Your task to perform on an android device: Search for vegetarian restaurants on Maps Image 0: 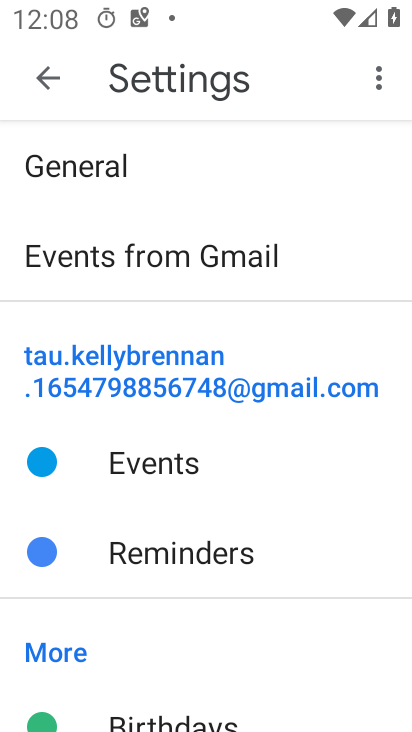
Step 0: press home button
Your task to perform on an android device: Search for vegetarian restaurants on Maps Image 1: 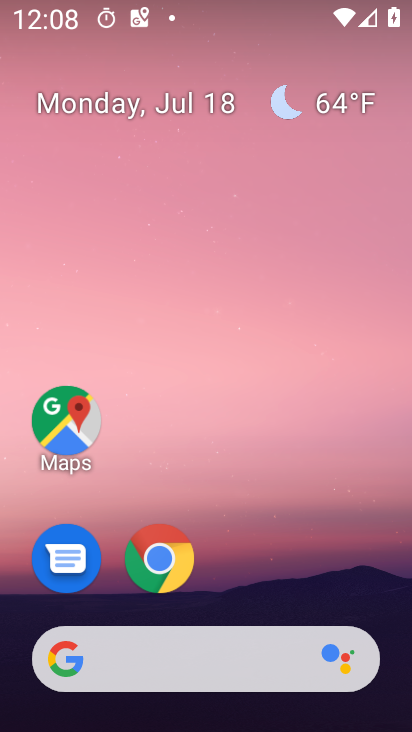
Step 1: drag from (337, 587) to (368, 124)
Your task to perform on an android device: Search for vegetarian restaurants on Maps Image 2: 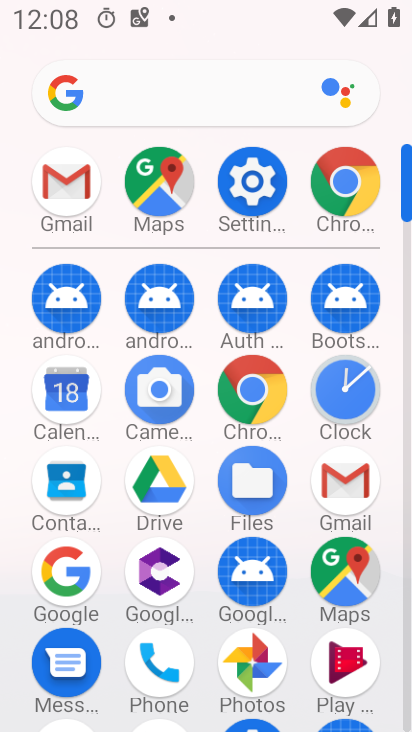
Step 2: click (349, 601)
Your task to perform on an android device: Search for vegetarian restaurants on Maps Image 3: 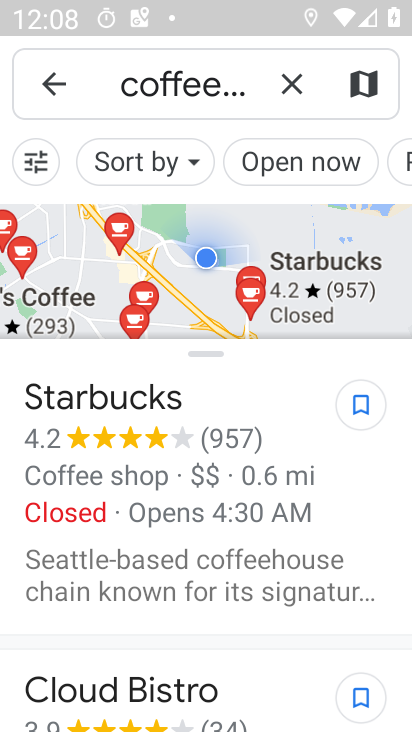
Step 3: press back button
Your task to perform on an android device: Search for vegetarian restaurants on Maps Image 4: 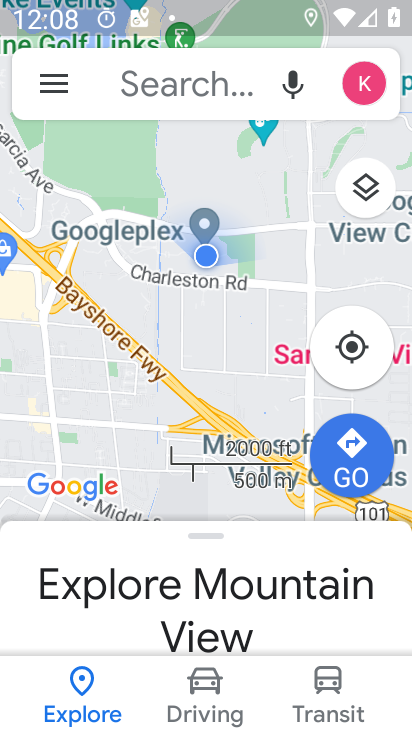
Step 4: click (174, 95)
Your task to perform on an android device: Search for vegetarian restaurants on Maps Image 5: 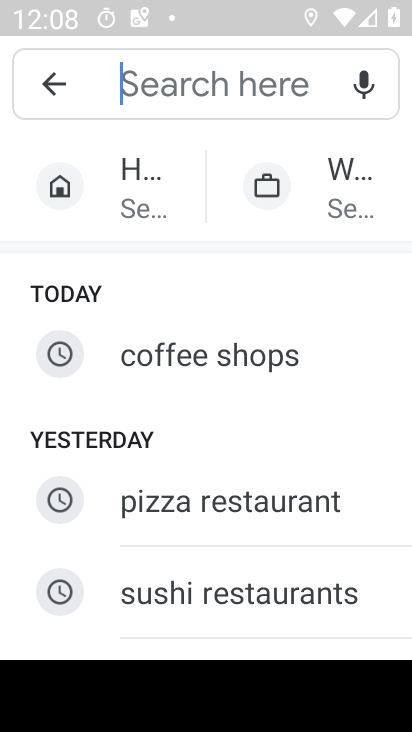
Step 5: type "vegetrain restaurants"
Your task to perform on an android device: Search for vegetarian restaurants on Maps Image 6: 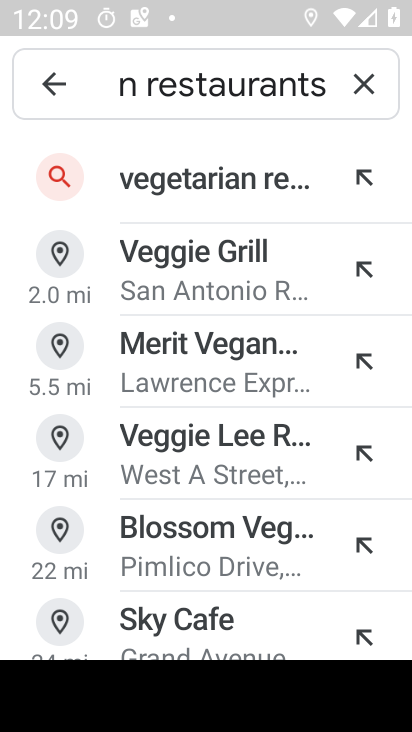
Step 6: click (233, 190)
Your task to perform on an android device: Search for vegetarian restaurants on Maps Image 7: 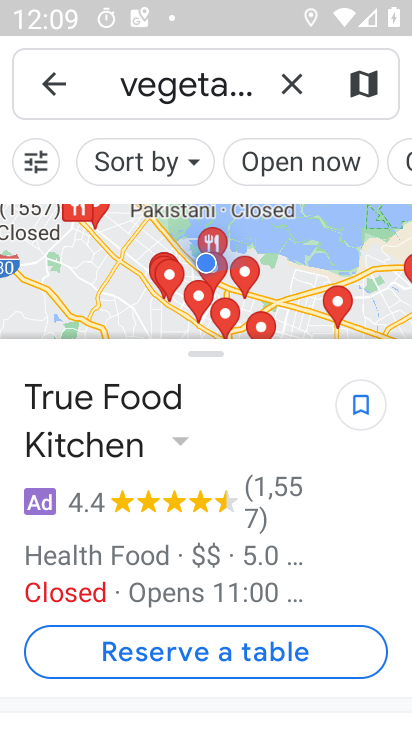
Step 7: task complete